Your task to perform on an android device: What's the weather going to be tomorrow? Image 0: 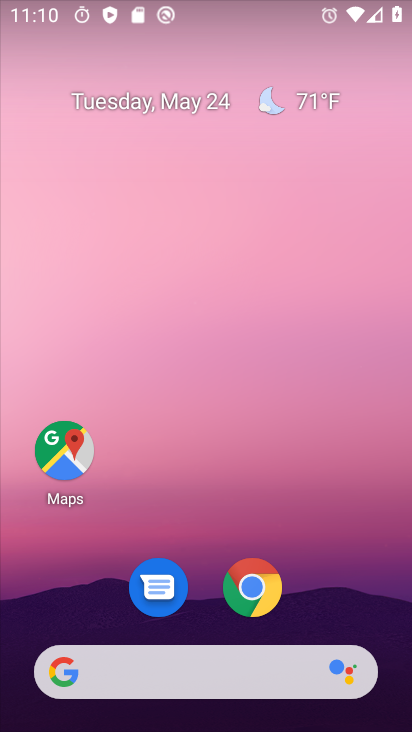
Step 0: drag from (294, 635) to (217, 162)
Your task to perform on an android device: What's the weather going to be tomorrow? Image 1: 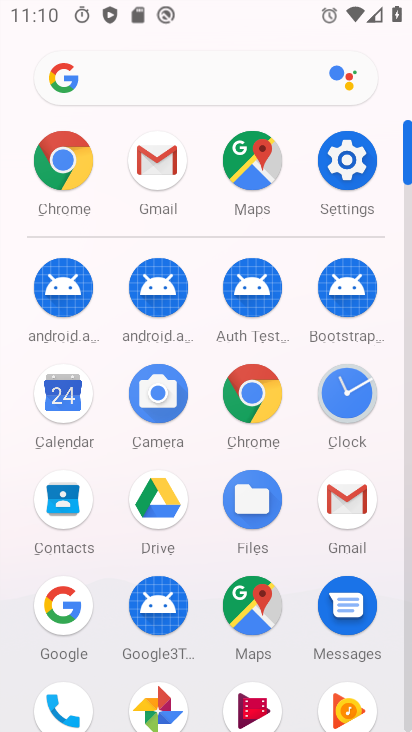
Step 1: press back button
Your task to perform on an android device: What's the weather going to be tomorrow? Image 2: 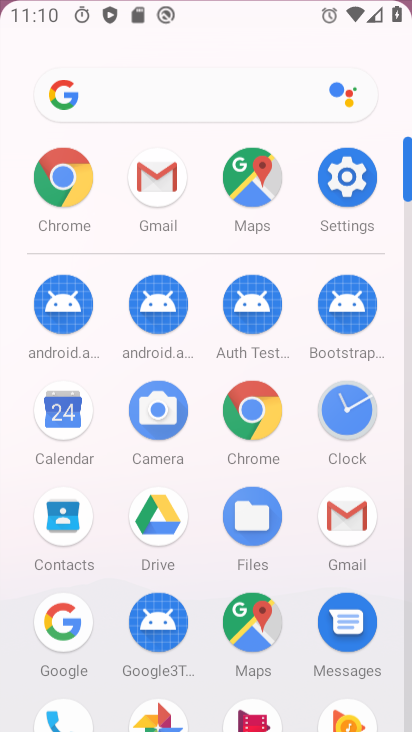
Step 2: press back button
Your task to perform on an android device: What's the weather going to be tomorrow? Image 3: 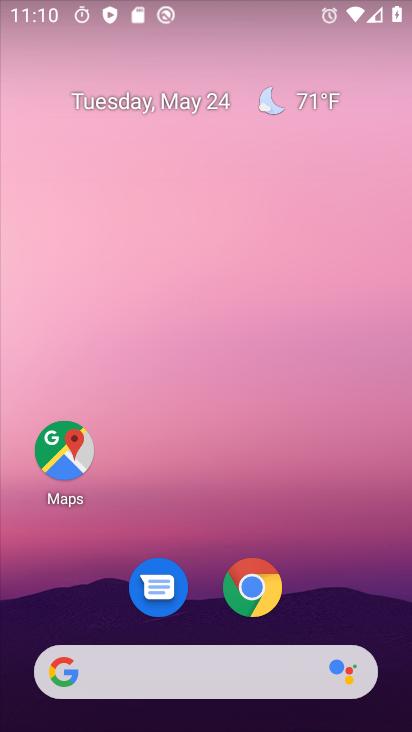
Step 3: press back button
Your task to perform on an android device: What's the weather going to be tomorrow? Image 4: 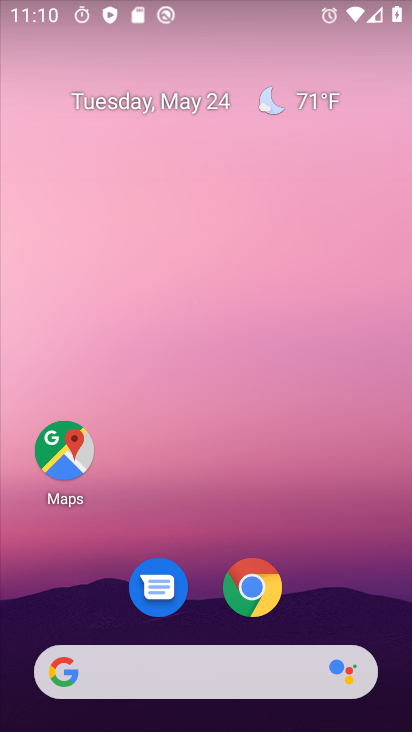
Step 4: drag from (307, 714) to (236, 171)
Your task to perform on an android device: What's the weather going to be tomorrow? Image 5: 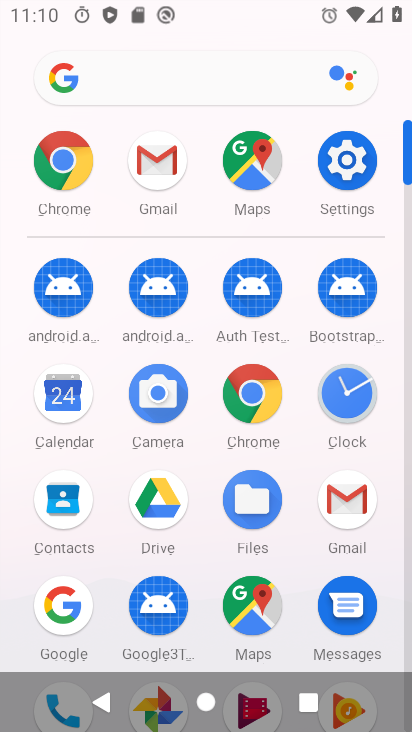
Step 5: press back button
Your task to perform on an android device: What's the weather going to be tomorrow? Image 6: 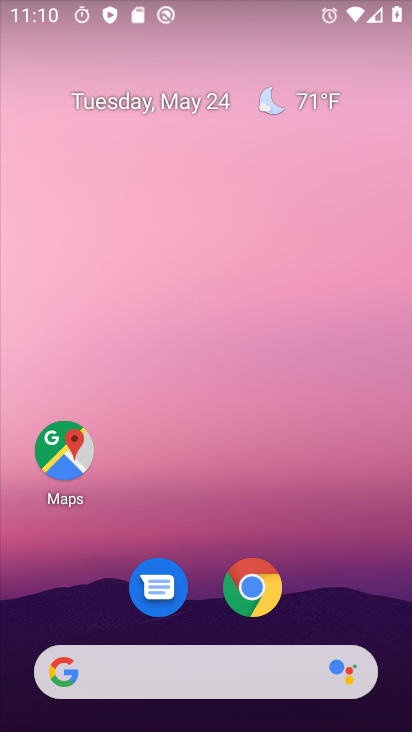
Step 6: drag from (146, 307) to (405, 475)
Your task to perform on an android device: What's the weather going to be tomorrow? Image 7: 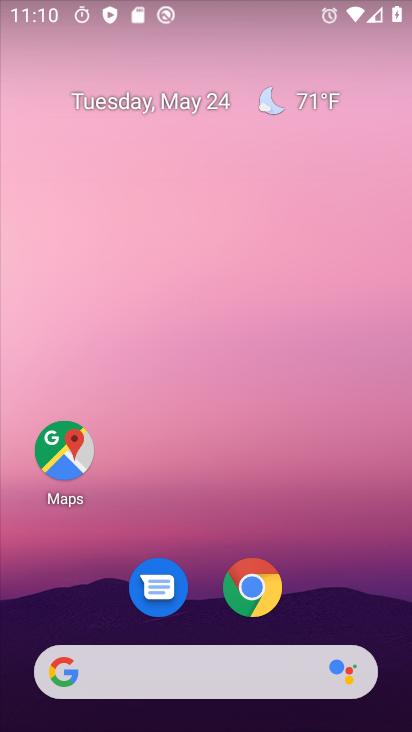
Step 7: drag from (0, 223) to (344, 354)
Your task to perform on an android device: What's the weather going to be tomorrow? Image 8: 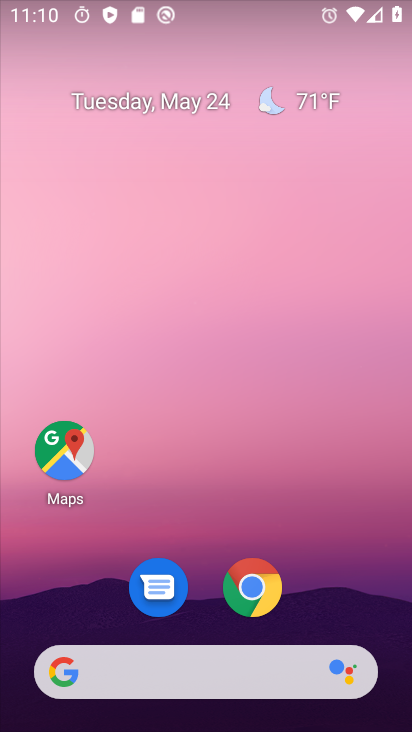
Step 8: drag from (407, 338) to (358, 256)
Your task to perform on an android device: What's the weather going to be tomorrow? Image 9: 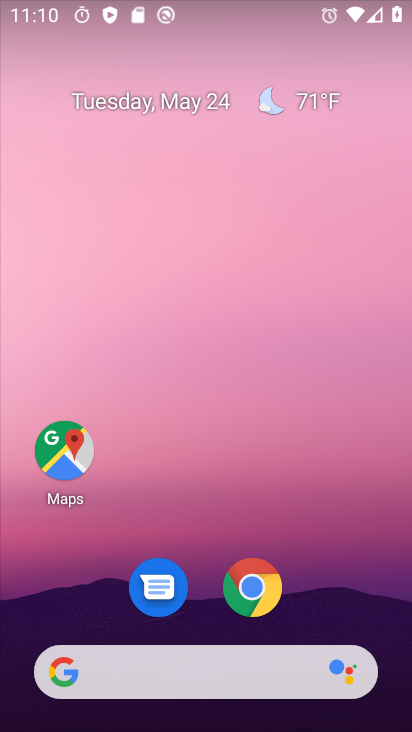
Step 9: drag from (109, 279) to (390, 323)
Your task to perform on an android device: What's the weather going to be tomorrow? Image 10: 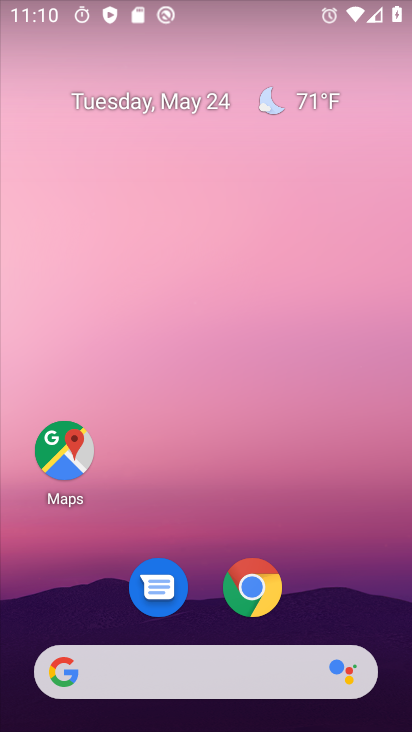
Step 10: drag from (6, 218) to (392, 358)
Your task to perform on an android device: What's the weather going to be tomorrow? Image 11: 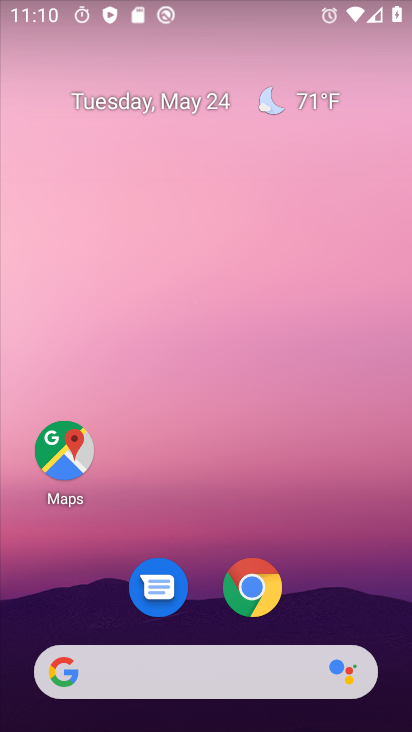
Step 11: drag from (36, 233) to (393, 356)
Your task to perform on an android device: What's the weather going to be tomorrow? Image 12: 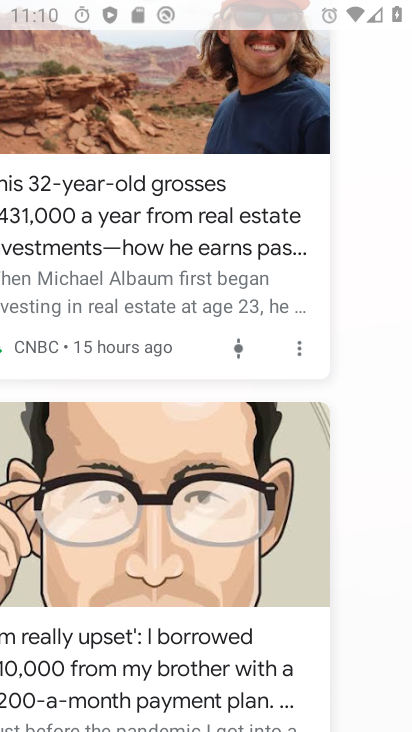
Step 12: drag from (13, 247) to (404, 385)
Your task to perform on an android device: What's the weather going to be tomorrow? Image 13: 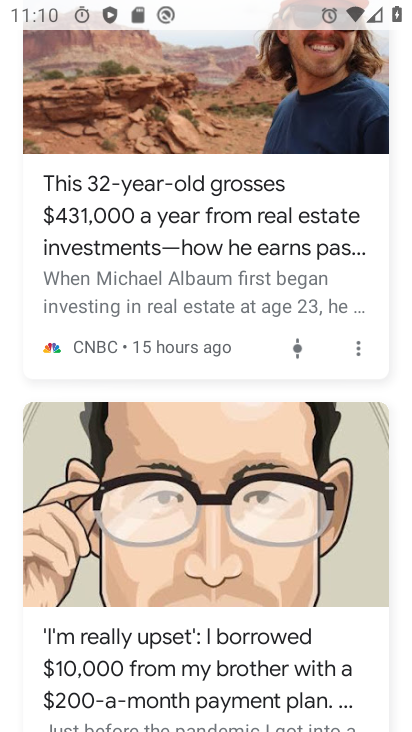
Step 13: drag from (147, 126) to (186, 388)
Your task to perform on an android device: What's the weather going to be tomorrow? Image 14: 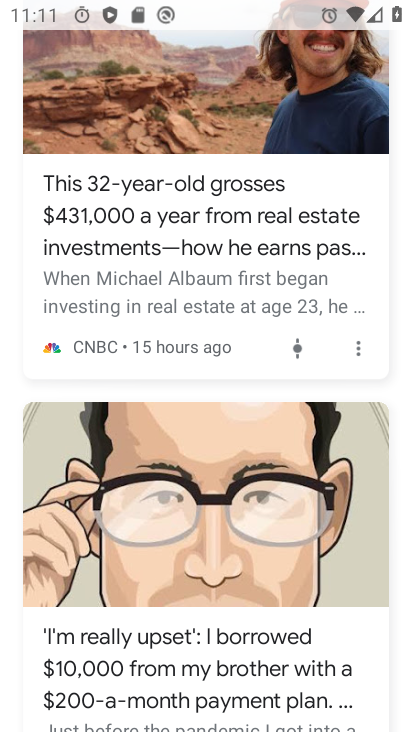
Step 14: click (285, 588)
Your task to perform on an android device: What's the weather going to be tomorrow? Image 15: 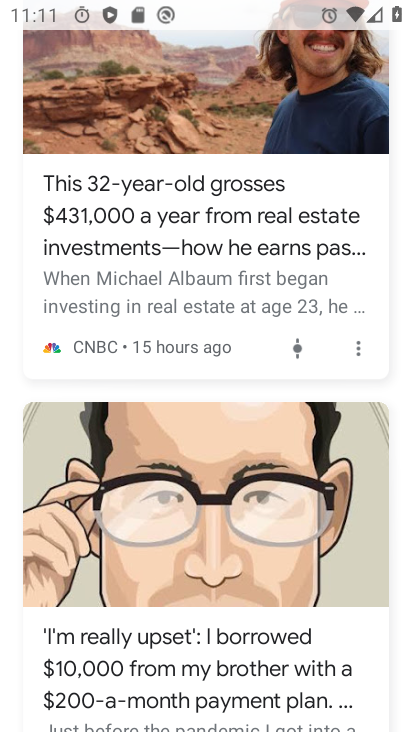
Step 15: drag from (277, 504) to (179, 435)
Your task to perform on an android device: What's the weather going to be tomorrow? Image 16: 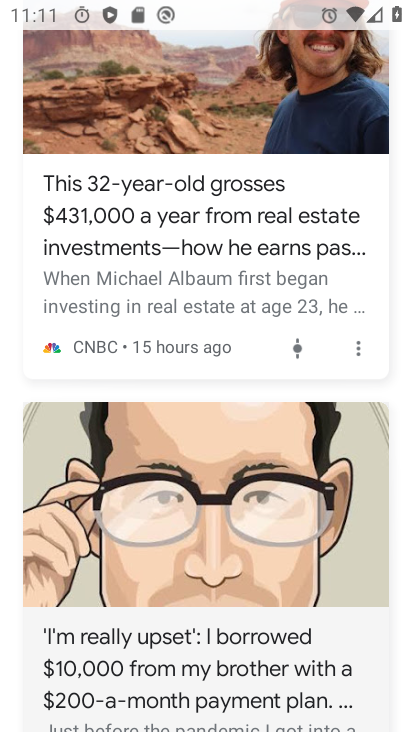
Step 16: drag from (231, 477) to (293, 366)
Your task to perform on an android device: What's the weather going to be tomorrow? Image 17: 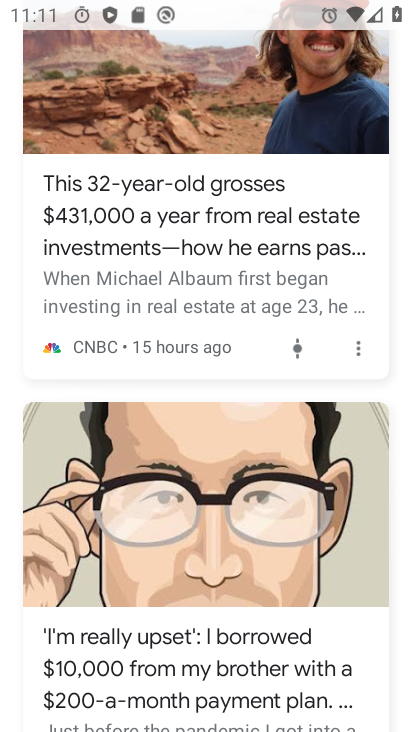
Step 17: drag from (198, 121) to (59, 556)
Your task to perform on an android device: What's the weather going to be tomorrow? Image 18: 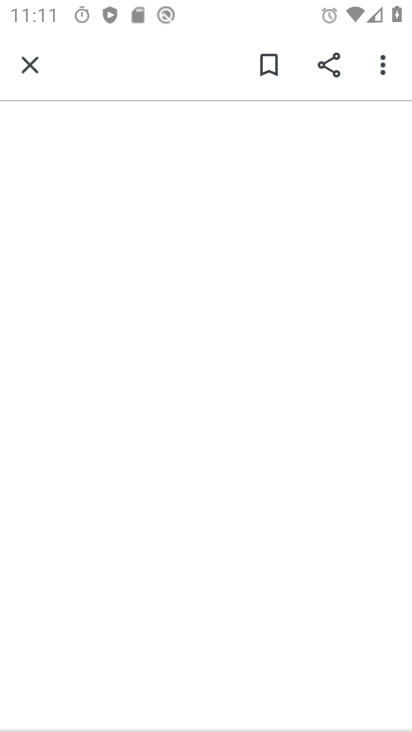
Step 18: drag from (147, 202) to (255, 510)
Your task to perform on an android device: What's the weather going to be tomorrow? Image 19: 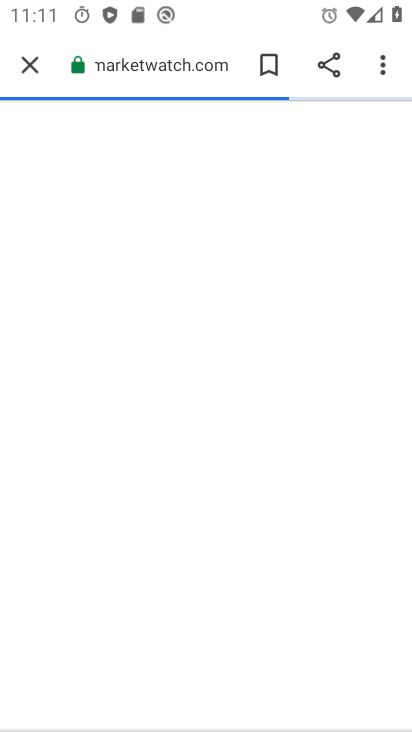
Step 19: drag from (260, 230) to (305, 488)
Your task to perform on an android device: What's the weather going to be tomorrow? Image 20: 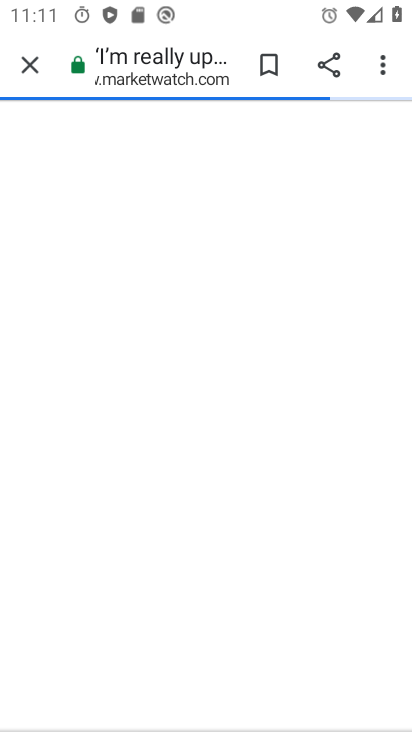
Step 20: click (36, 75)
Your task to perform on an android device: What's the weather going to be tomorrow? Image 21: 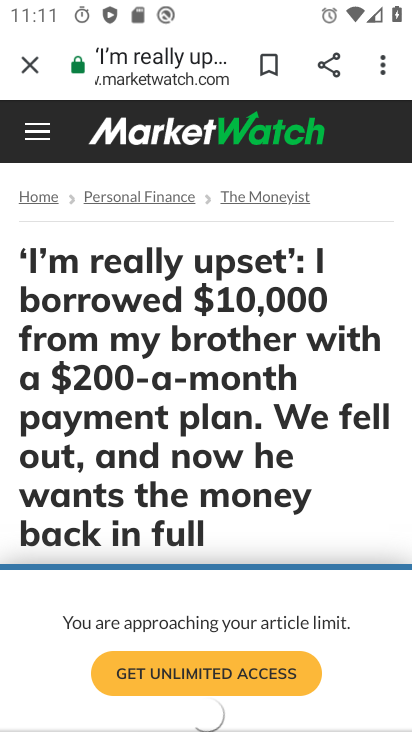
Step 21: task complete